Your task to perform on an android device: open app "LinkedIn" (install if not already installed) Image 0: 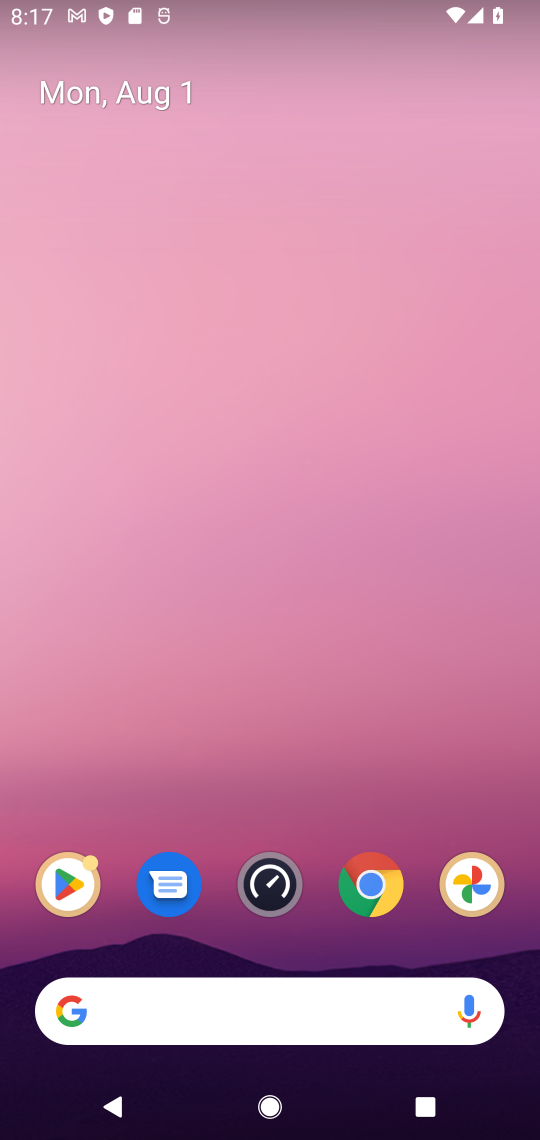
Step 0: click (21, 885)
Your task to perform on an android device: open app "LinkedIn" (install if not already installed) Image 1: 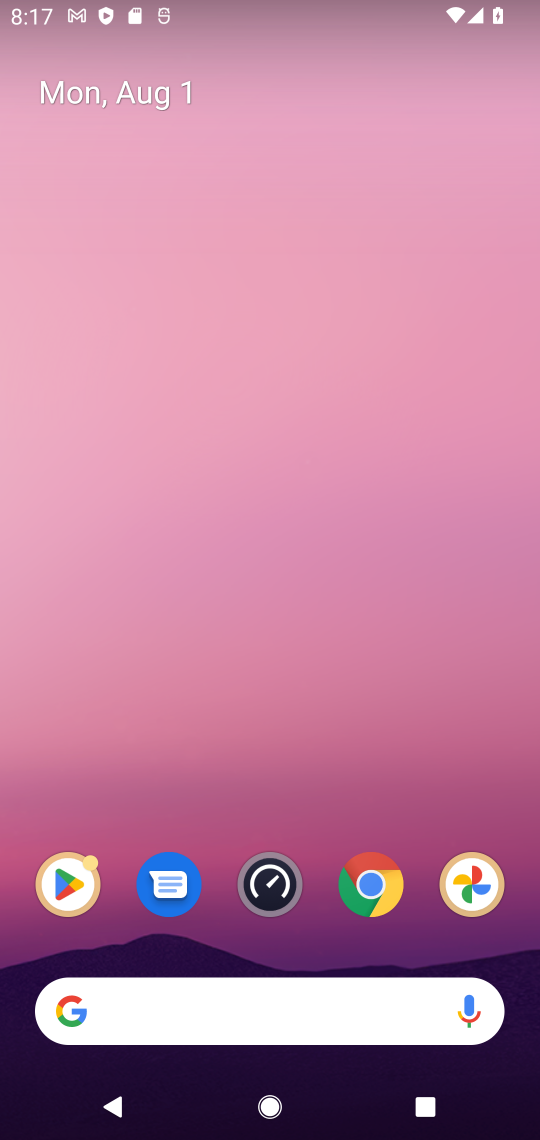
Step 1: click (44, 886)
Your task to perform on an android device: open app "LinkedIn" (install if not already installed) Image 2: 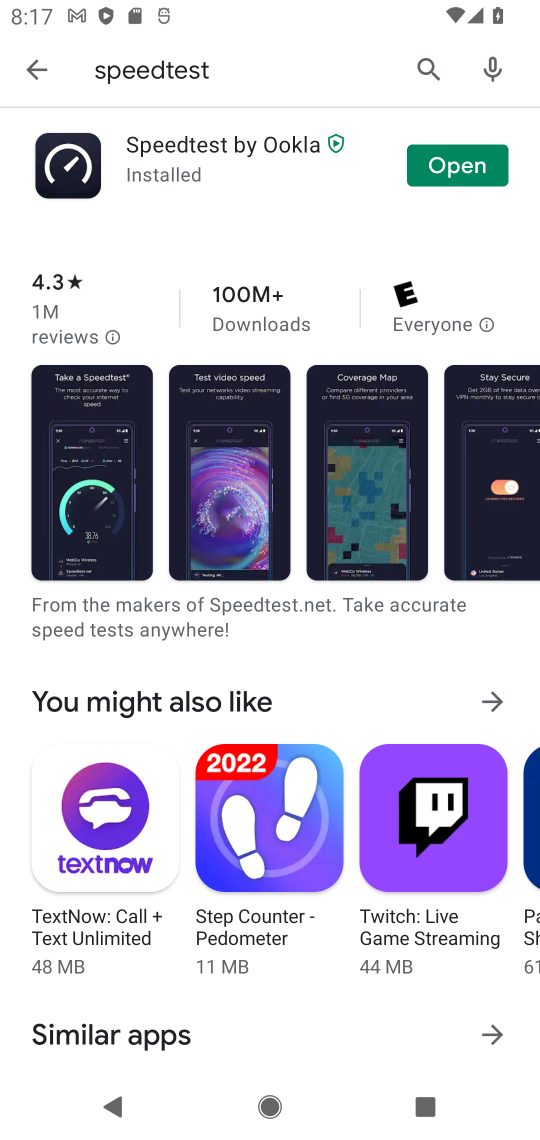
Step 2: click (419, 72)
Your task to perform on an android device: open app "LinkedIn" (install if not already installed) Image 3: 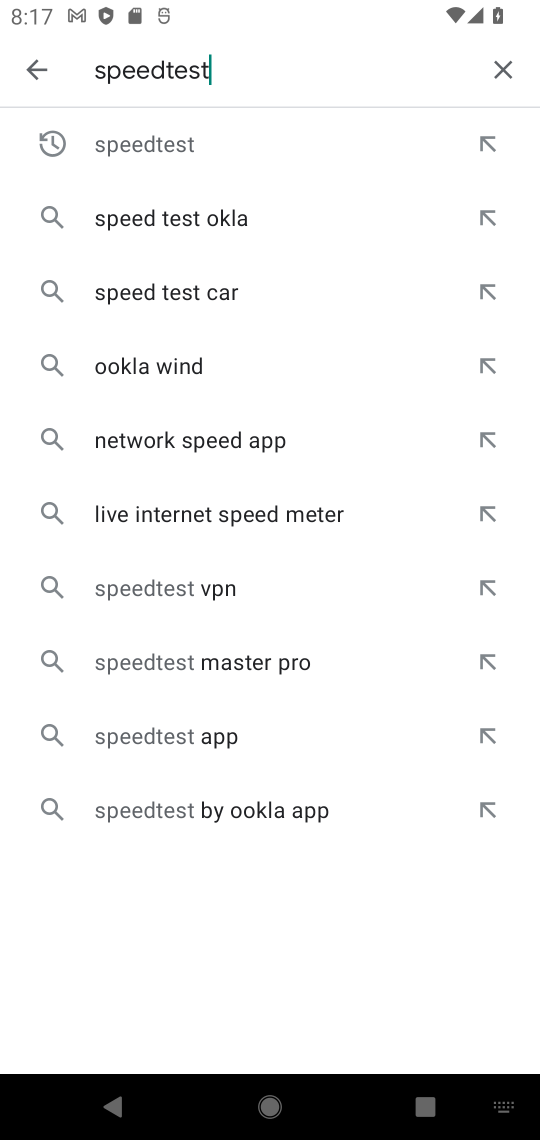
Step 3: click (502, 76)
Your task to perform on an android device: open app "LinkedIn" (install if not already installed) Image 4: 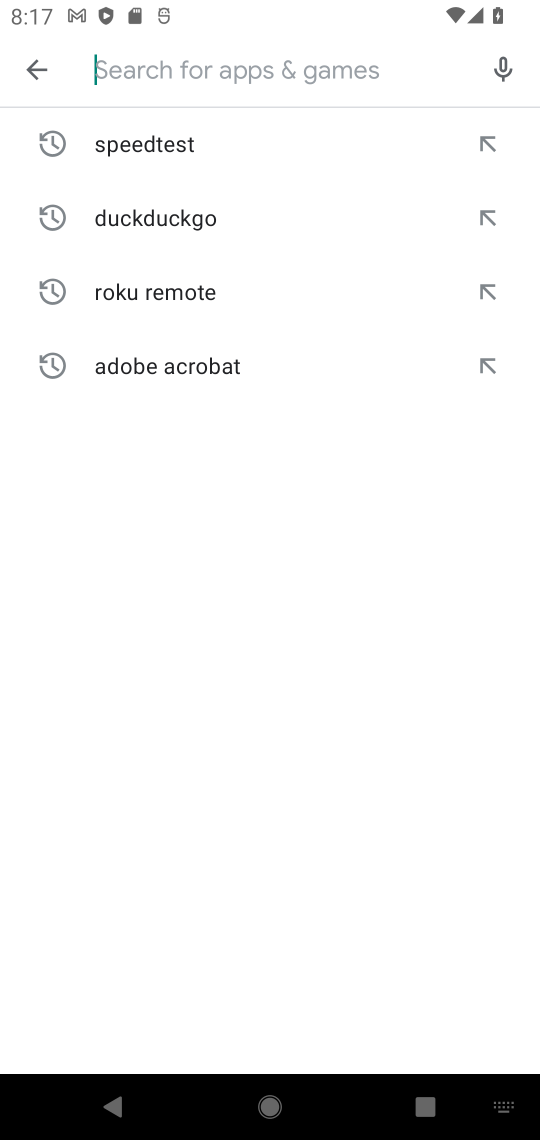
Step 4: type "linkedin"
Your task to perform on an android device: open app "LinkedIn" (install if not already installed) Image 5: 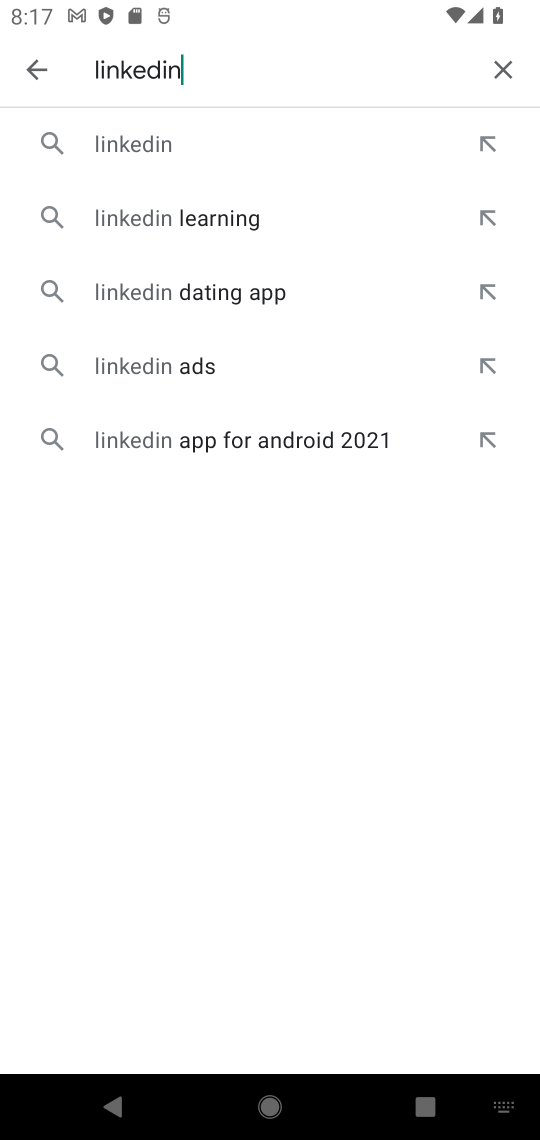
Step 5: click (137, 143)
Your task to perform on an android device: open app "LinkedIn" (install if not already installed) Image 6: 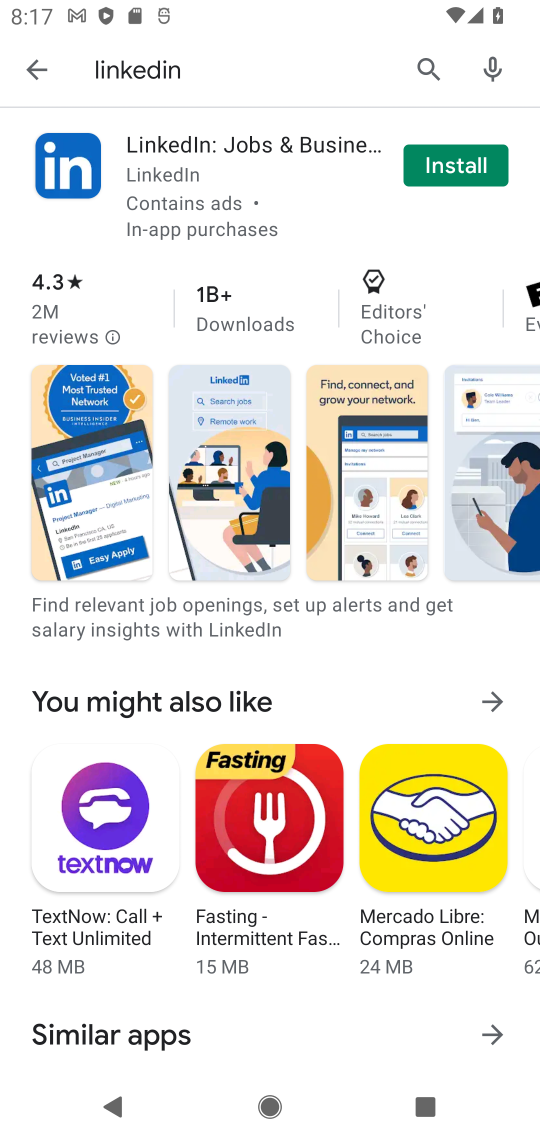
Step 6: click (447, 166)
Your task to perform on an android device: open app "LinkedIn" (install if not already installed) Image 7: 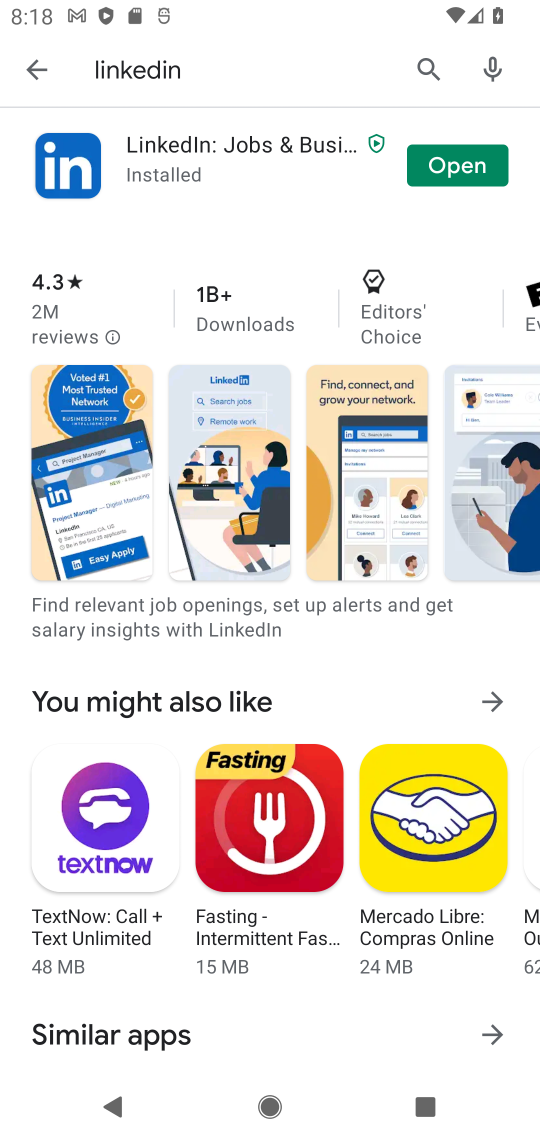
Step 7: click (461, 180)
Your task to perform on an android device: open app "LinkedIn" (install if not already installed) Image 8: 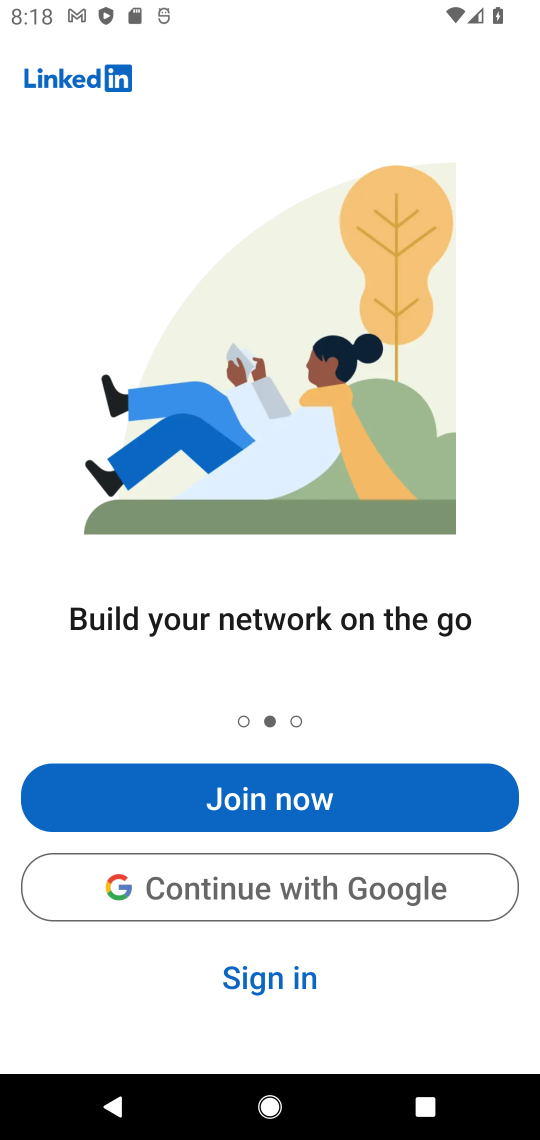
Step 8: task complete